Your task to perform on an android device: Go to display settings Image 0: 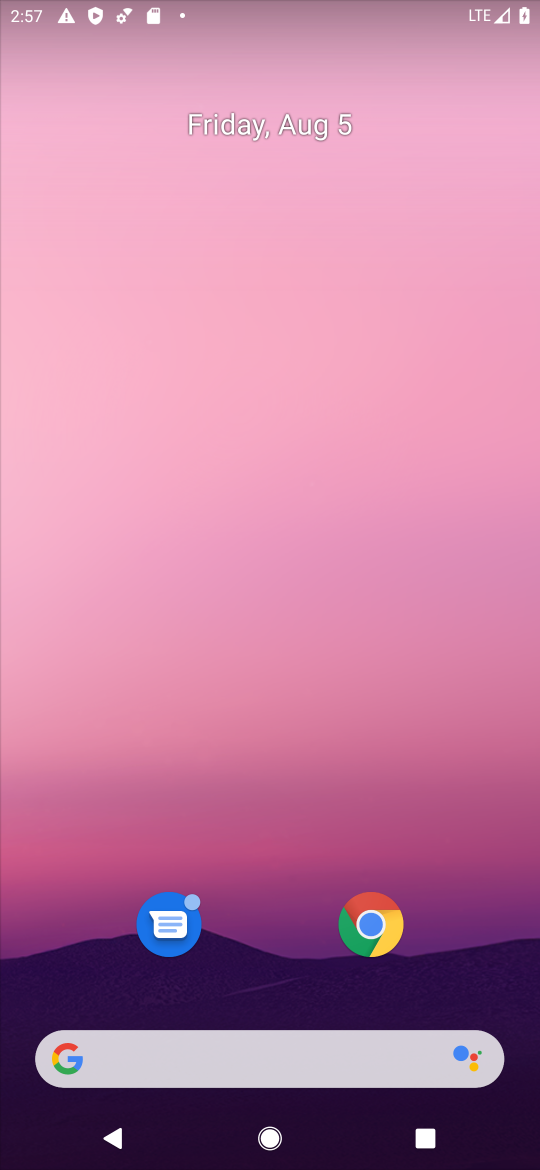
Step 0: drag from (298, 982) to (313, 113)
Your task to perform on an android device: Go to display settings Image 1: 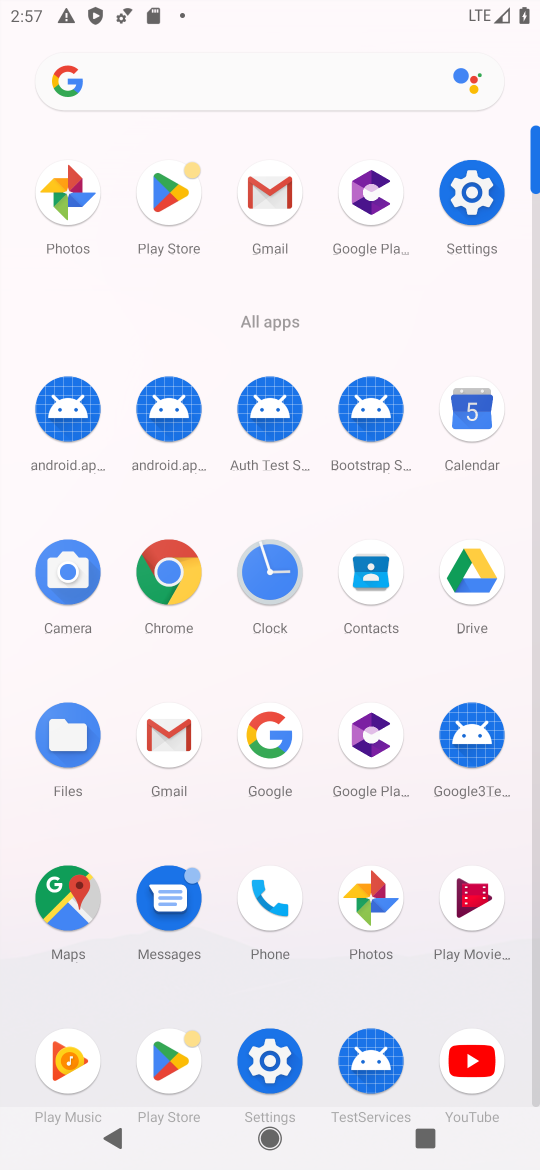
Step 1: click (281, 1056)
Your task to perform on an android device: Go to display settings Image 2: 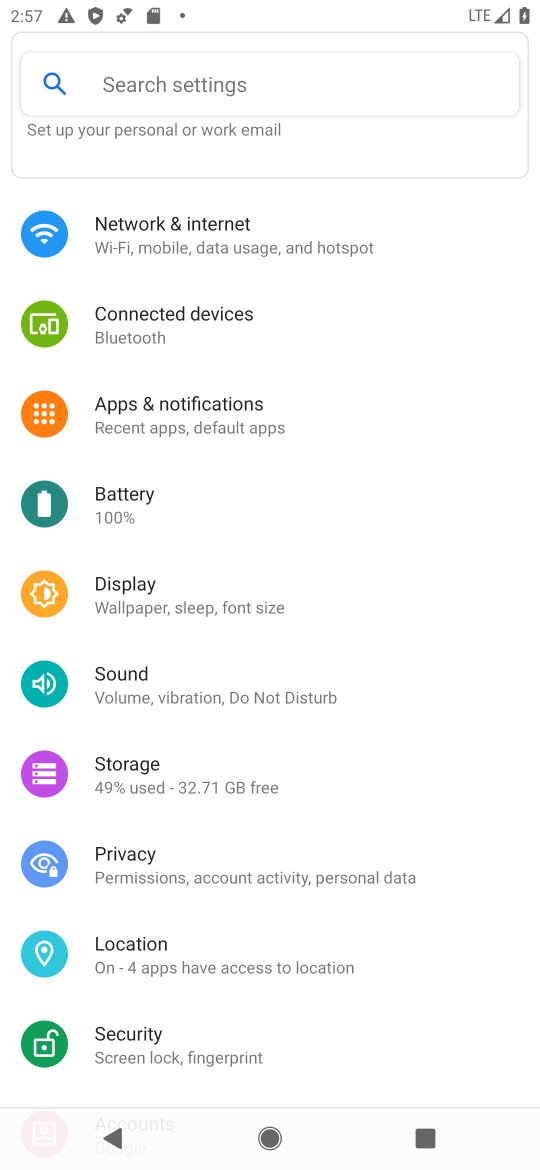
Step 2: click (170, 599)
Your task to perform on an android device: Go to display settings Image 3: 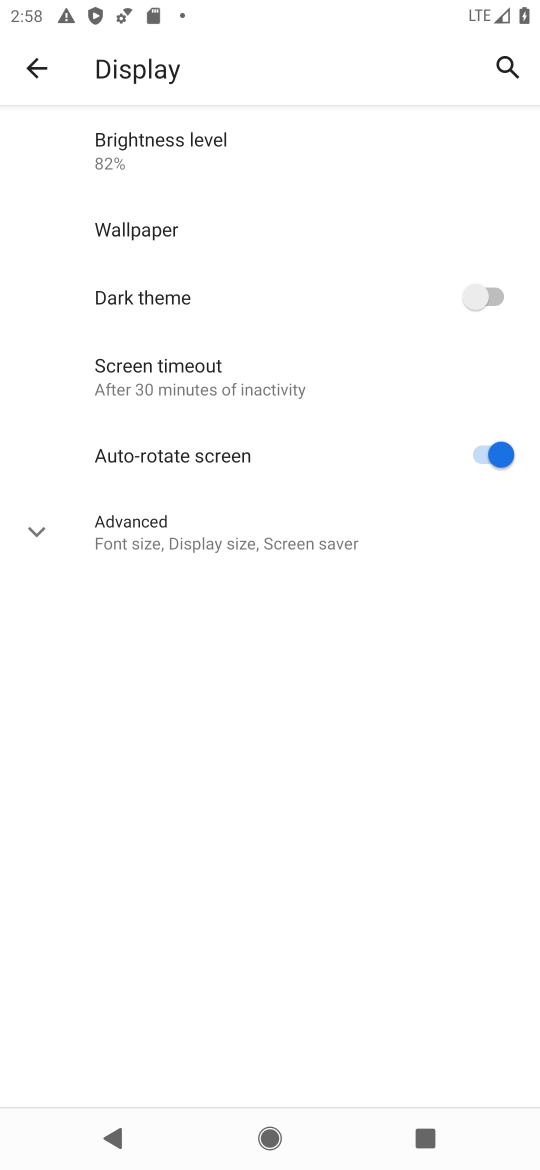
Step 3: task complete